Your task to perform on an android device: empty trash in google photos Image 0: 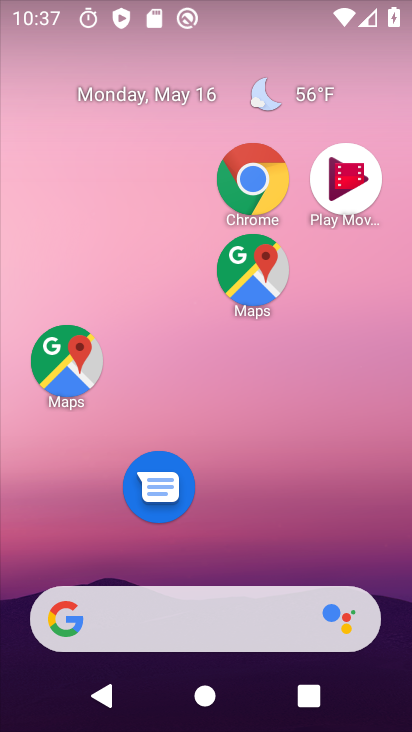
Step 0: drag from (232, 558) to (146, 84)
Your task to perform on an android device: empty trash in google photos Image 1: 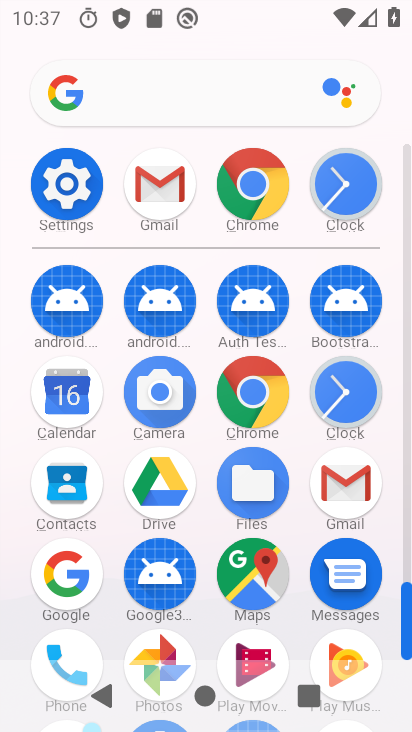
Step 1: click (172, 648)
Your task to perform on an android device: empty trash in google photos Image 2: 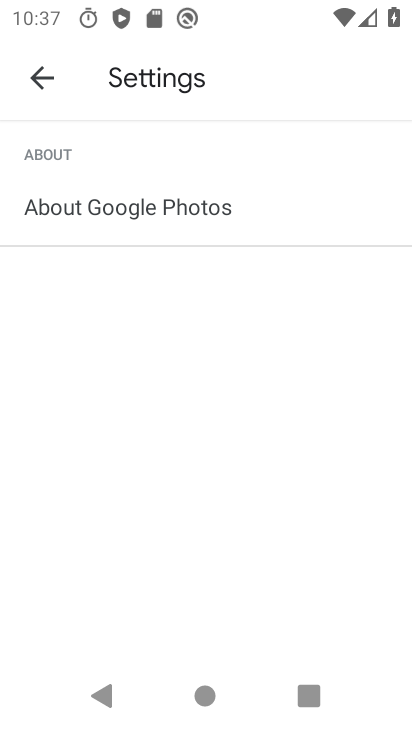
Step 2: click (41, 81)
Your task to perform on an android device: empty trash in google photos Image 3: 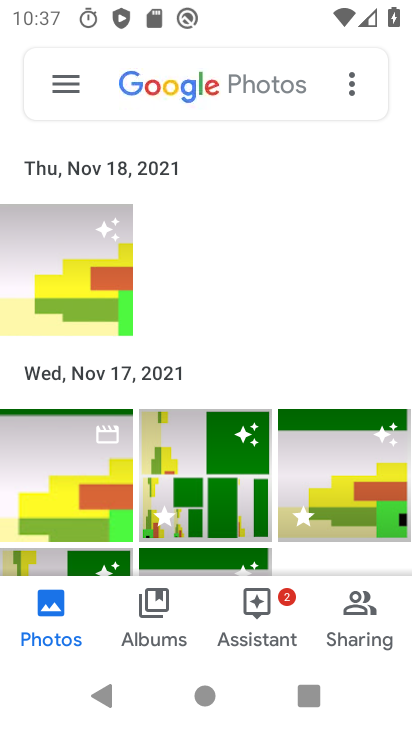
Step 3: click (68, 83)
Your task to perform on an android device: empty trash in google photos Image 4: 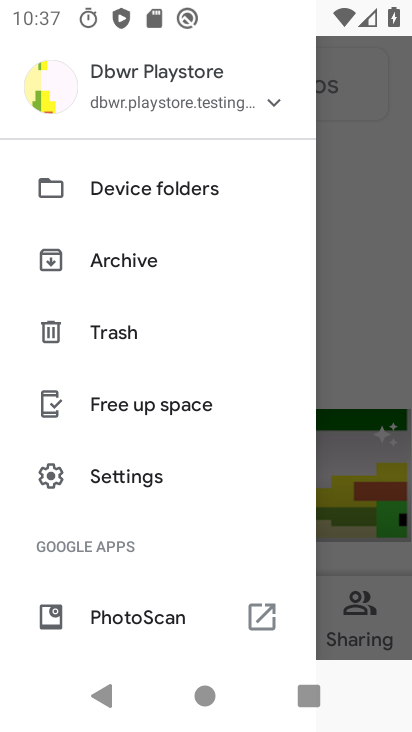
Step 4: click (92, 334)
Your task to perform on an android device: empty trash in google photos Image 5: 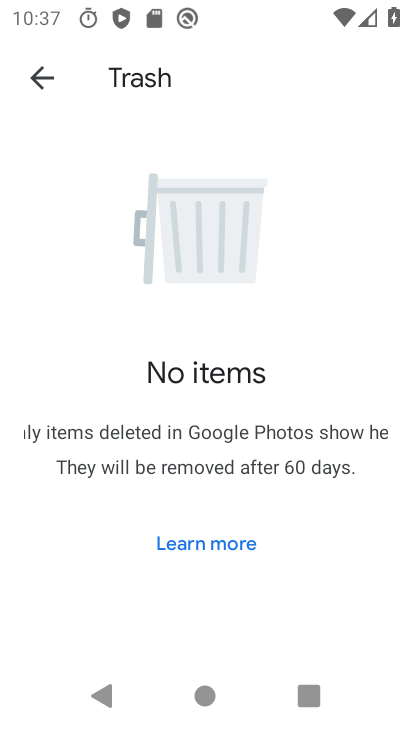
Step 5: press home button
Your task to perform on an android device: empty trash in google photos Image 6: 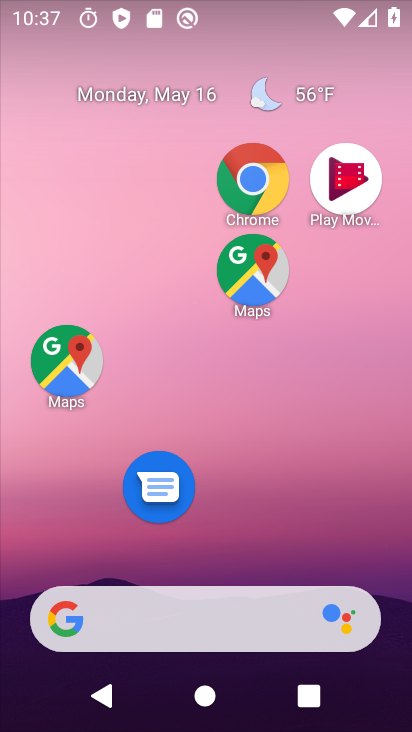
Step 6: drag from (241, 4) to (350, 36)
Your task to perform on an android device: empty trash in google photos Image 7: 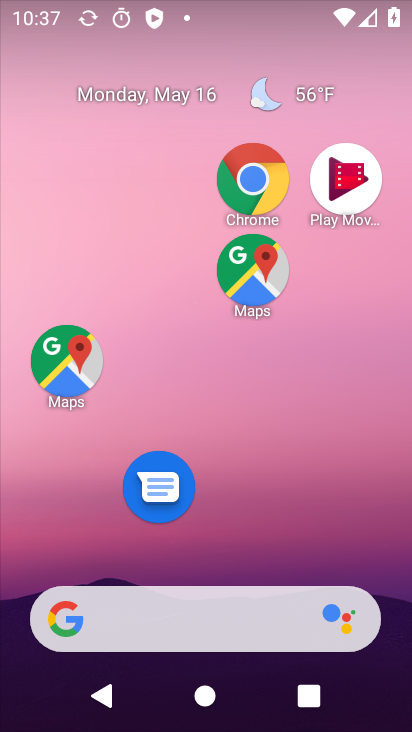
Step 7: click (183, 40)
Your task to perform on an android device: empty trash in google photos Image 8: 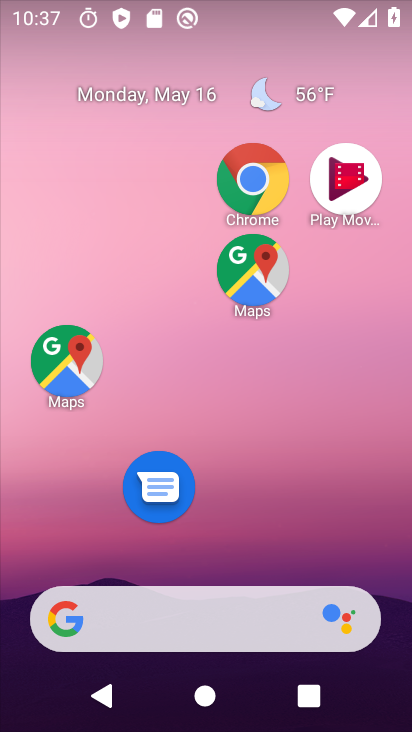
Step 8: drag from (241, 567) to (255, 174)
Your task to perform on an android device: empty trash in google photos Image 9: 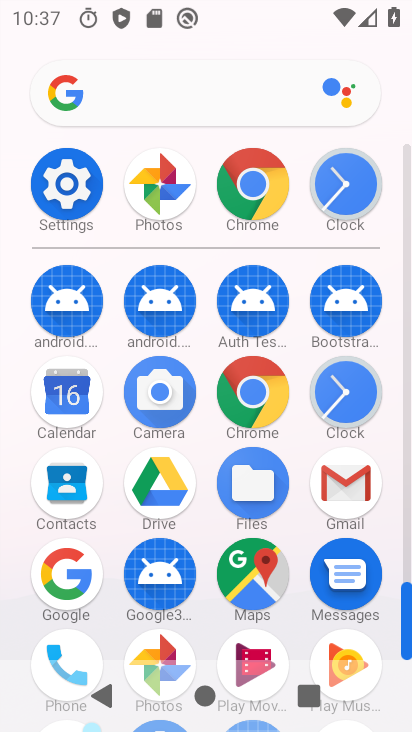
Step 9: click (164, 641)
Your task to perform on an android device: empty trash in google photos Image 10: 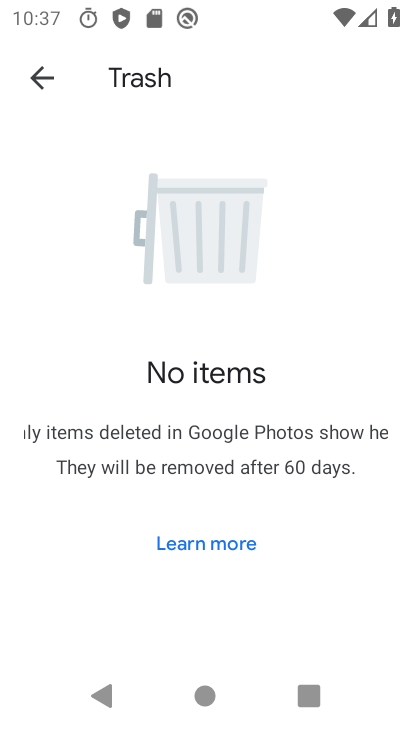
Step 10: task complete